Your task to perform on an android device: open chrome and create a bookmark for the current page Image 0: 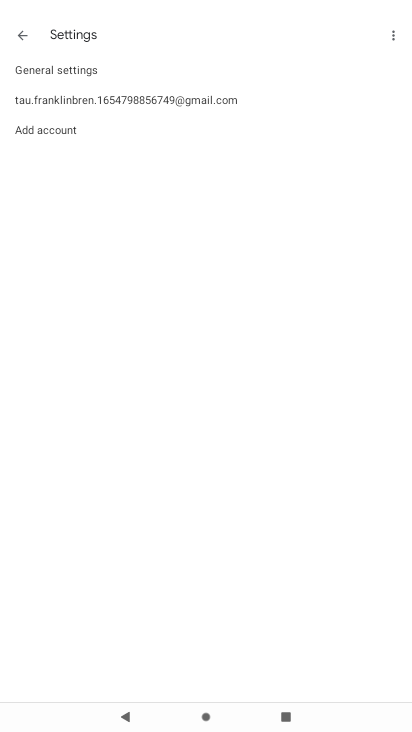
Step 0: press home button
Your task to perform on an android device: open chrome and create a bookmark for the current page Image 1: 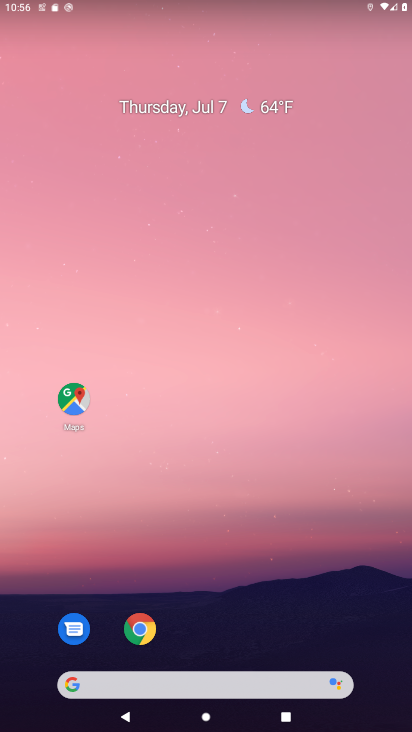
Step 1: click (141, 628)
Your task to perform on an android device: open chrome and create a bookmark for the current page Image 2: 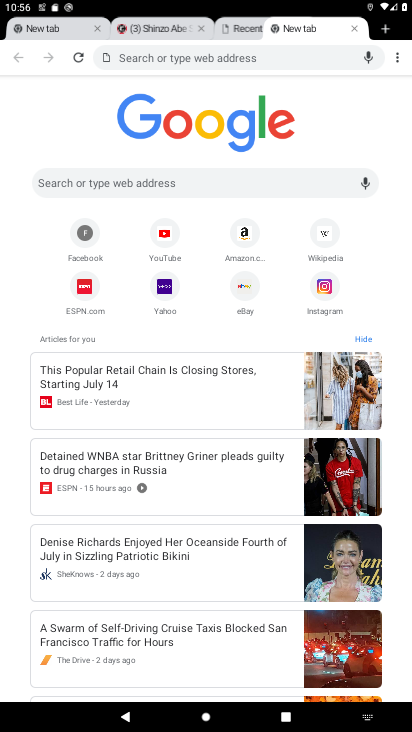
Step 2: click (399, 58)
Your task to perform on an android device: open chrome and create a bookmark for the current page Image 3: 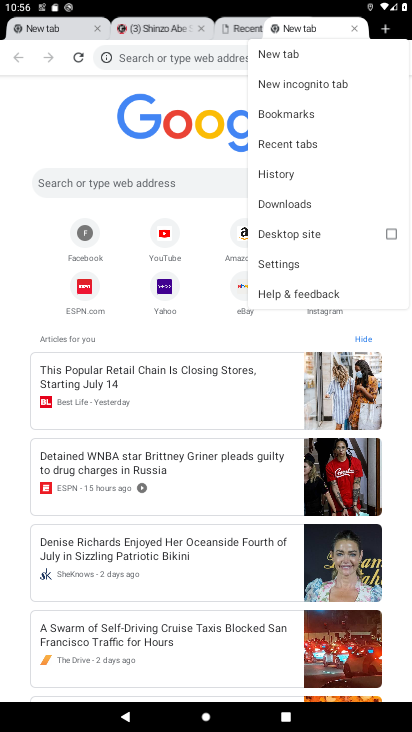
Step 3: click (72, 130)
Your task to perform on an android device: open chrome and create a bookmark for the current page Image 4: 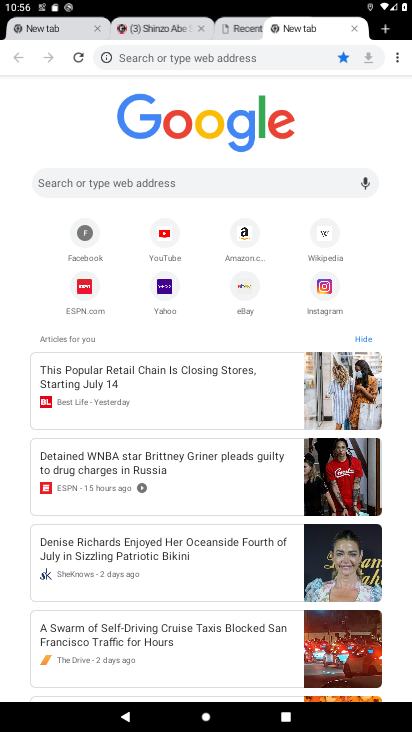
Step 4: task complete